Your task to perform on an android device: Search for a new perfume Image 0: 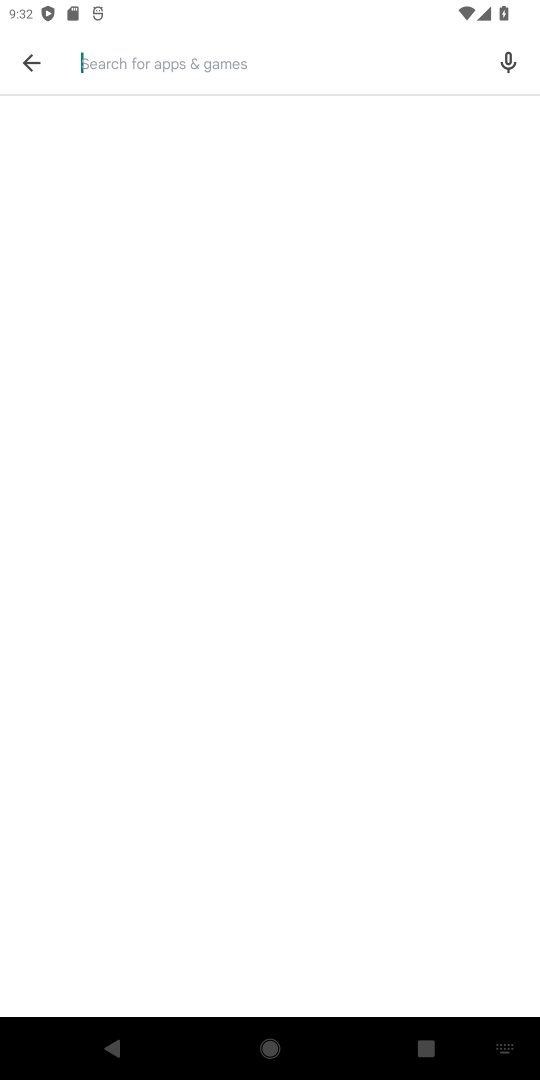
Step 0: press home button
Your task to perform on an android device: Search for a new perfume Image 1: 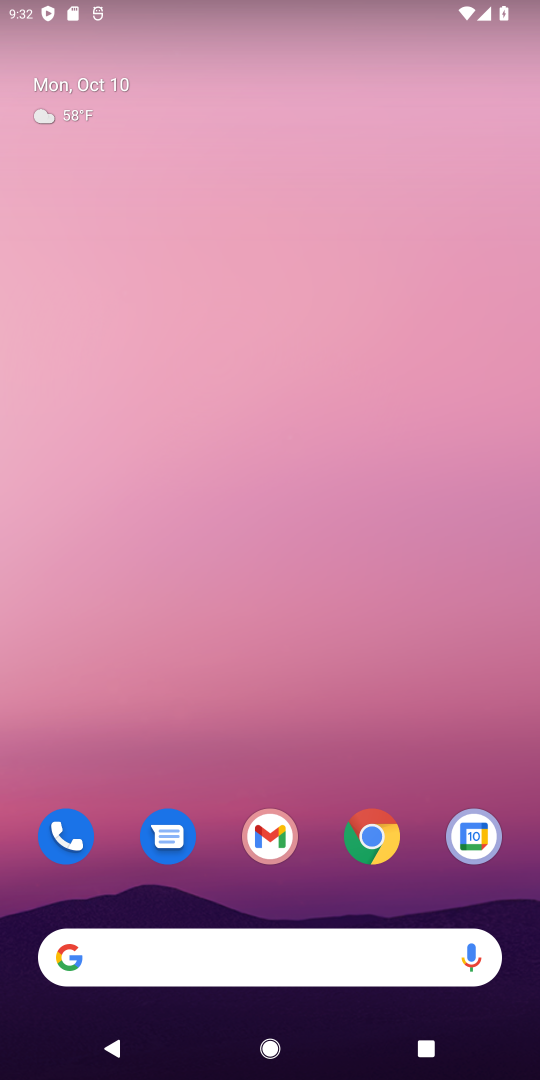
Step 1: drag from (246, 942) to (251, 257)
Your task to perform on an android device: Search for a new perfume Image 2: 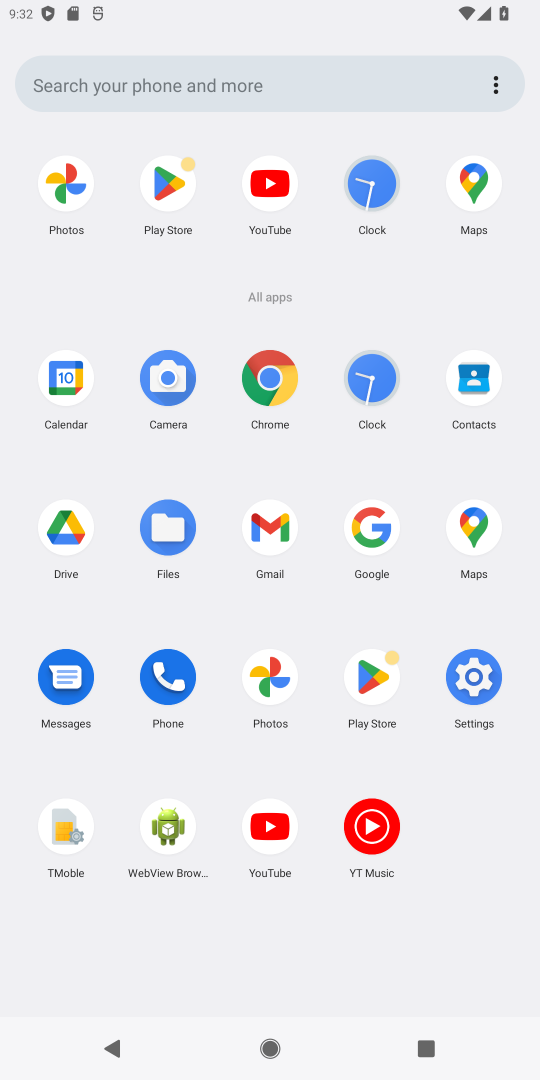
Step 2: click (379, 538)
Your task to perform on an android device: Search for a new perfume Image 3: 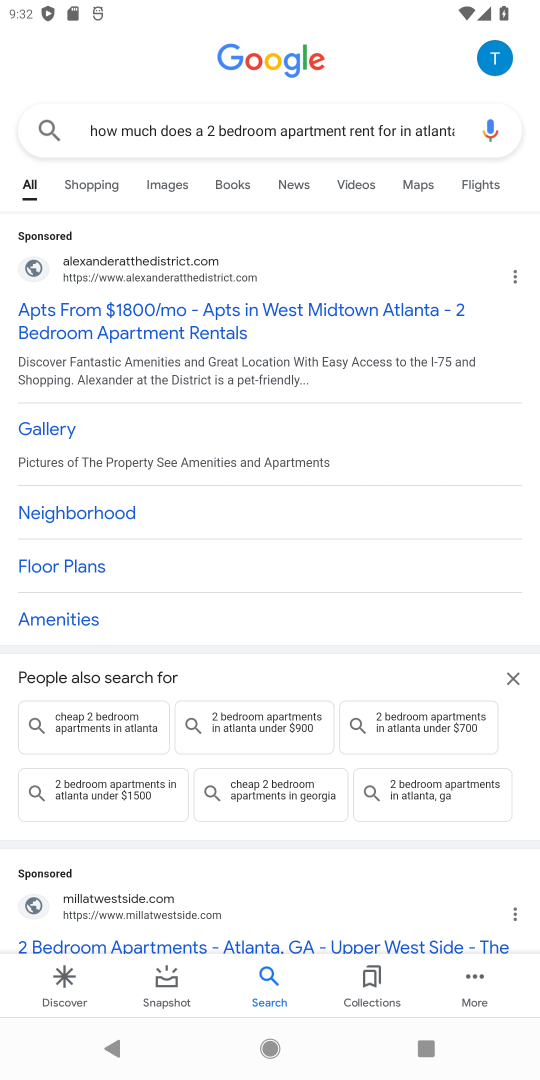
Step 3: click (233, 134)
Your task to perform on an android device: Search for a new perfume Image 4: 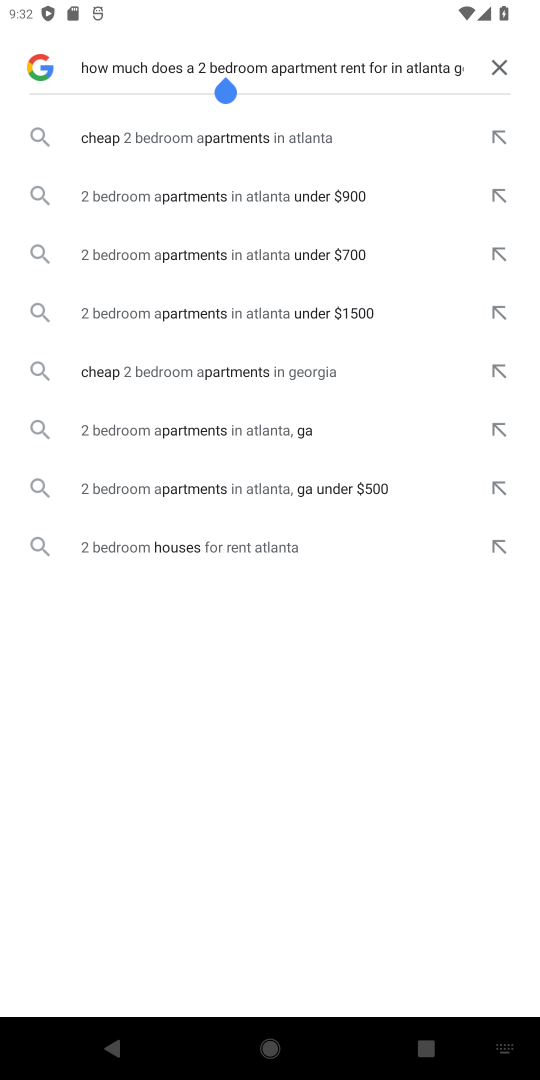
Step 4: click (502, 65)
Your task to perform on an android device: Search for a new perfume Image 5: 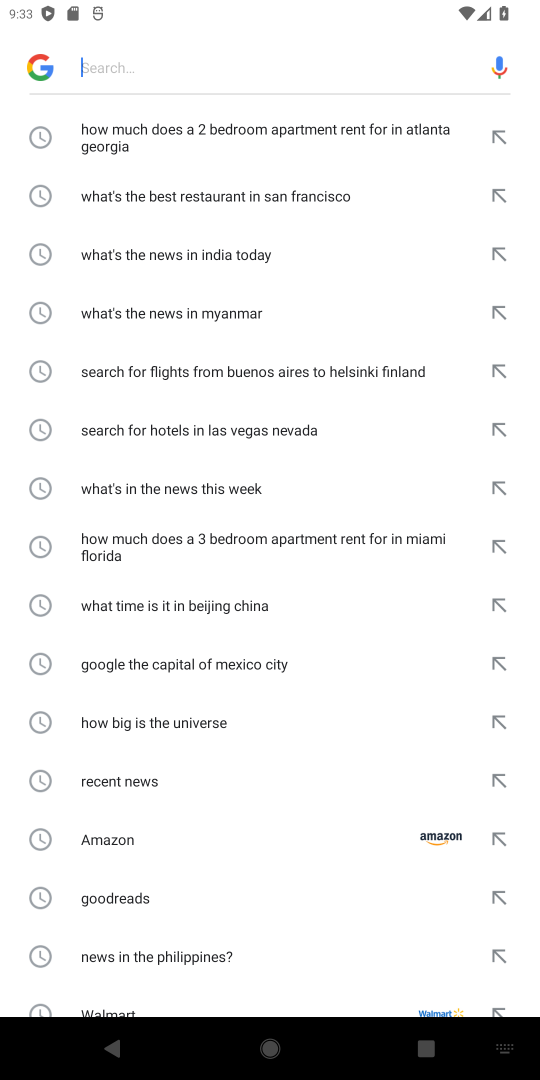
Step 5: type "Search for a new perfume"
Your task to perform on an android device: Search for a new perfume Image 6: 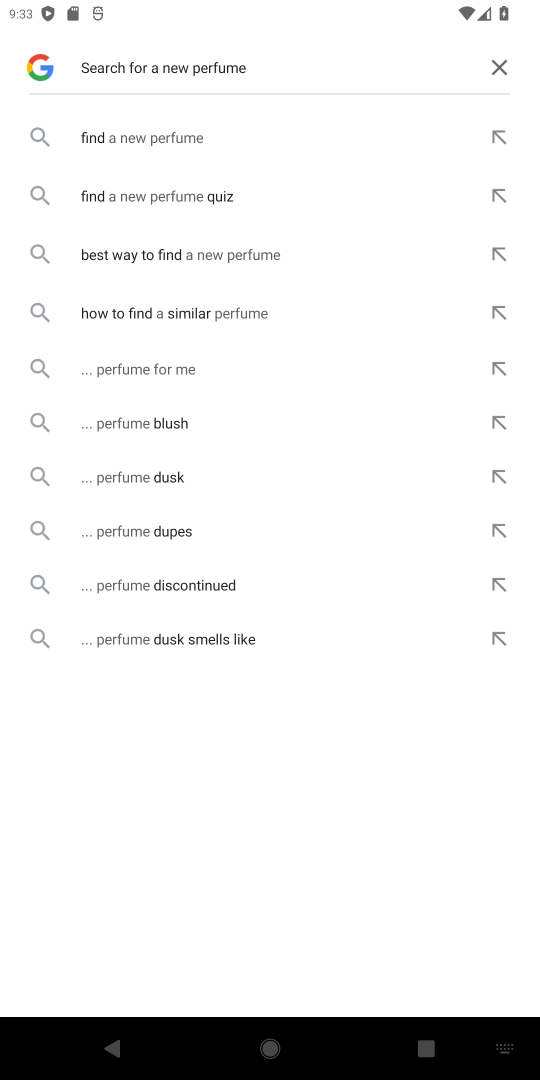
Step 6: click (94, 148)
Your task to perform on an android device: Search for a new perfume Image 7: 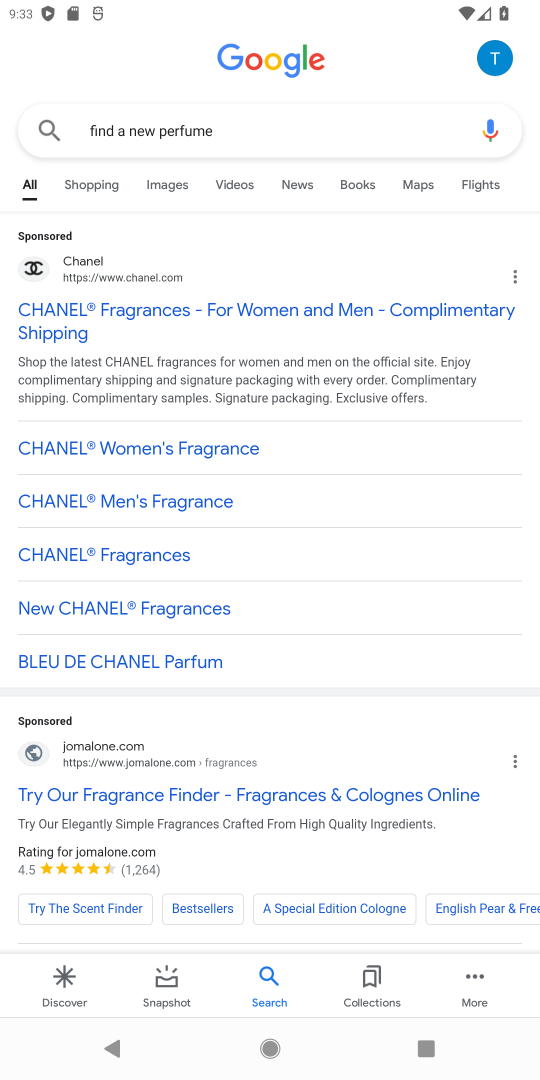
Step 7: click (265, 313)
Your task to perform on an android device: Search for a new perfume Image 8: 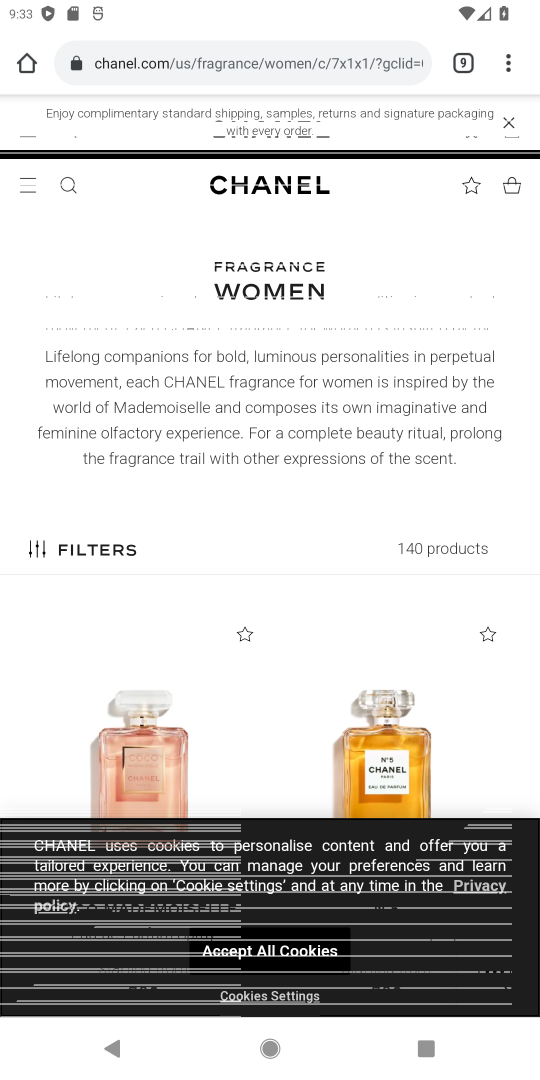
Step 8: task complete